Your task to perform on an android device: remove spam from my inbox in the gmail app Image 0: 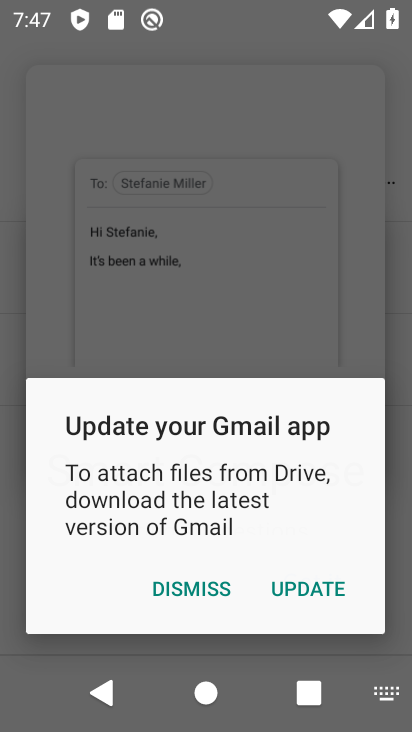
Step 0: press home button
Your task to perform on an android device: remove spam from my inbox in the gmail app Image 1: 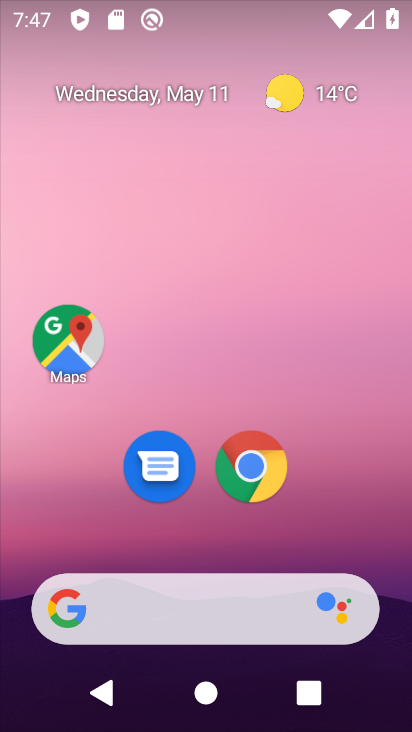
Step 1: drag from (333, 567) to (338, 52)
Your task to perform on an android device: remove spam from my inbox in the gmail app Image 2: 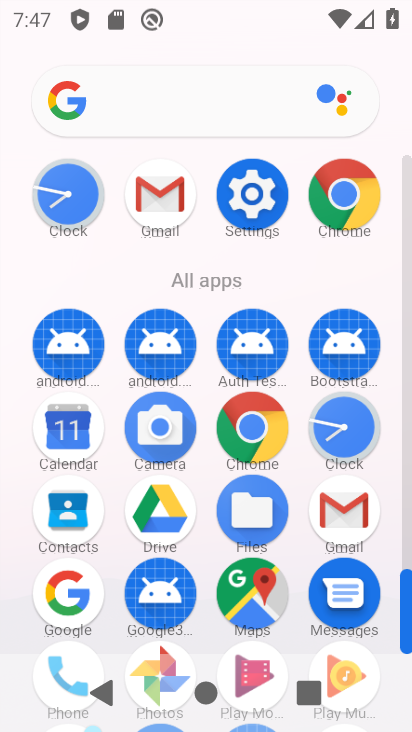
Step 2: click (332, 499)
Your task to perform on an android device: remove spam from my inbox in the gmail app Image 3: 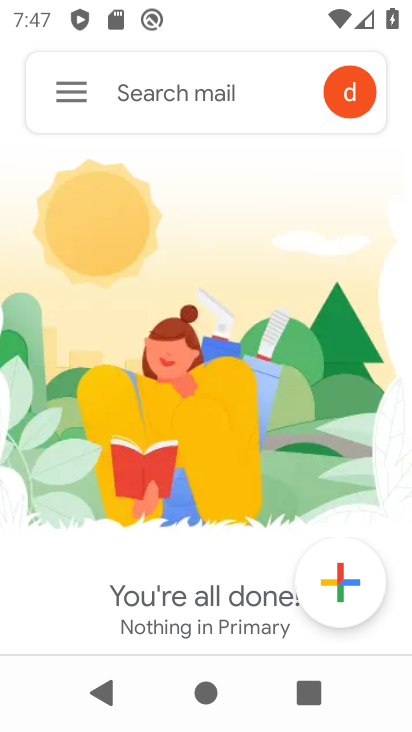
Step 3: click (60, 90)
Your task to perform on an android device: remove spam from my inbox in the gmail app Image 4: 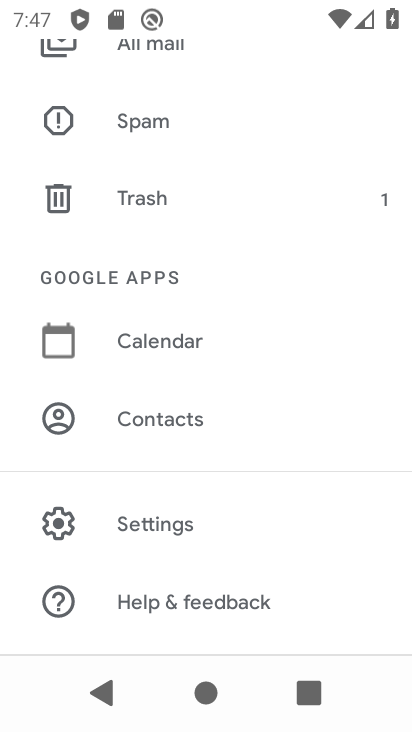
Step 4: click (178, 126)
Your task to perform on an android device: remove spam from my inbox in the gmail app Image 5: 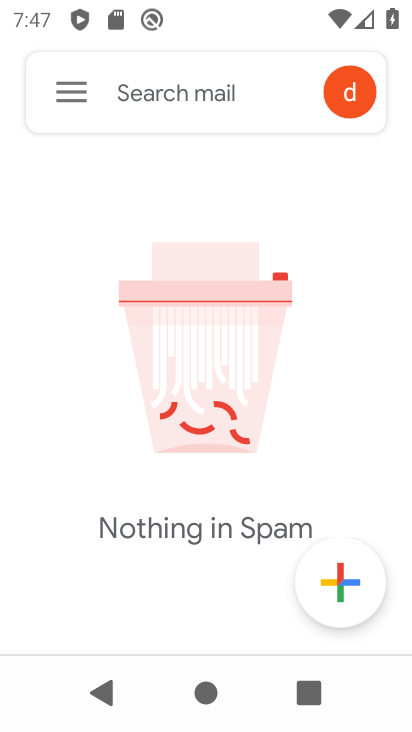
Step 5: task complete